Your task to perform on an android device: Open Chrome and go to settings Image 0: 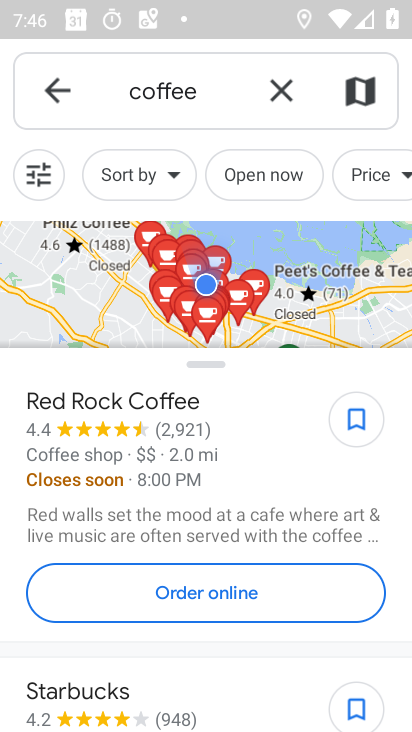
Step 0: press home button
Your task to perform on an android device: Open Chrome and go to settings Image 1: 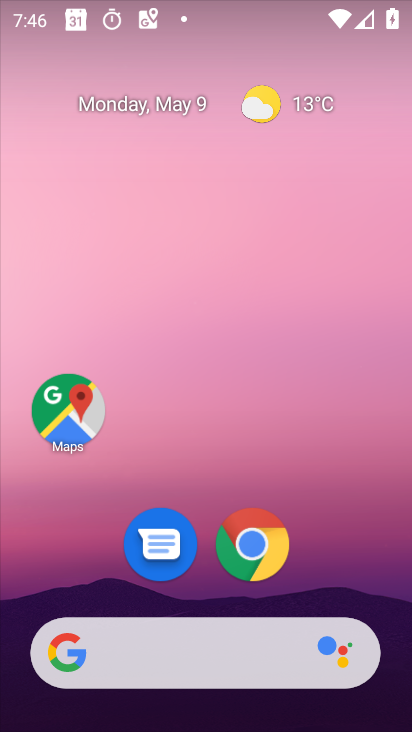
Step 1: click (269, 549)
Your task to perform on an android device: Open Chrome and go to settings Image 2: 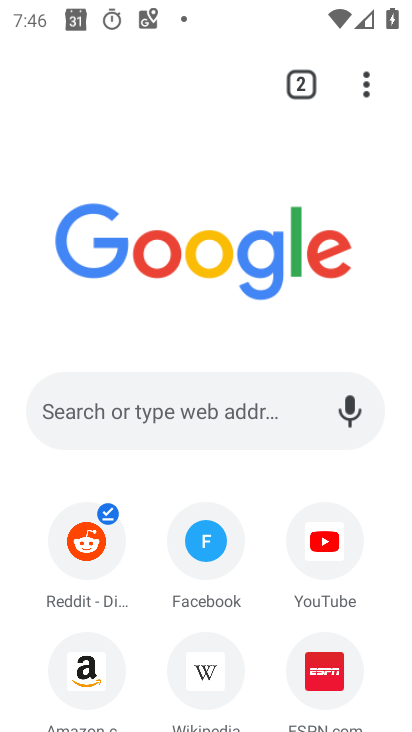
Step 2: task complete